Your task to perform on an android device: Open wifi settings Image 0: 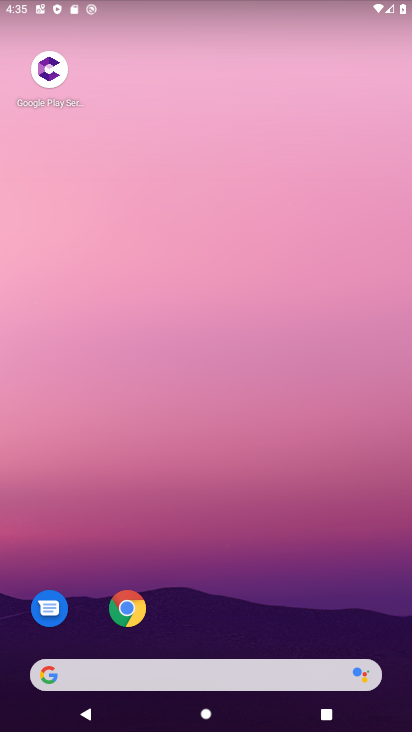
Step 0: drag from (67, 4) to (209, 668)
Your task to perform on an android device: Open wifi settings Image 1: 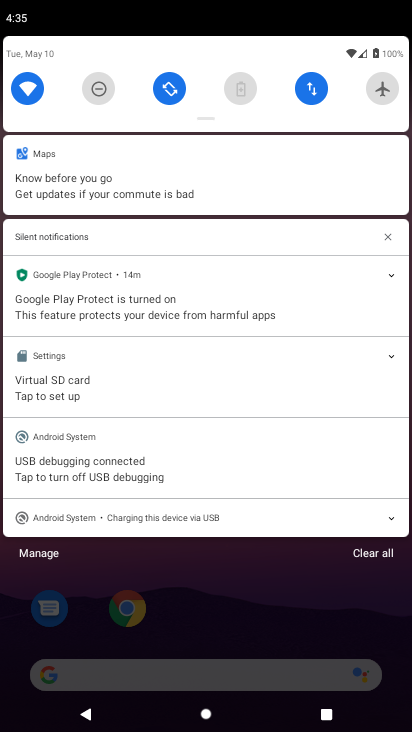
Step 1: click (22, 87)
Your task to perform on an android device: Open wifi settings Image 2: 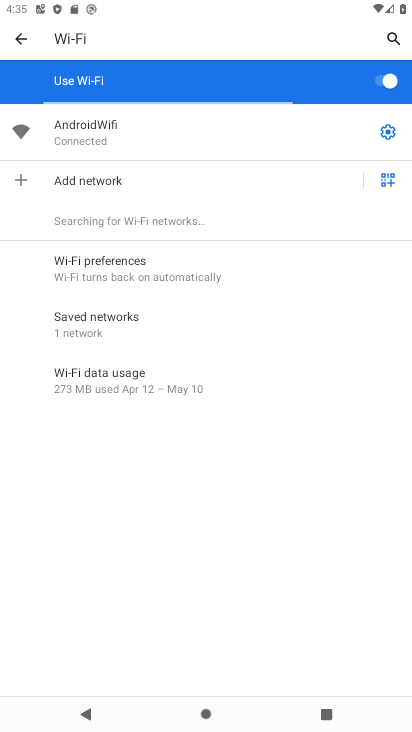
Step 2: task complete